Your task to perform on an android device: Search for pizza restaurants on Maps Image 0: 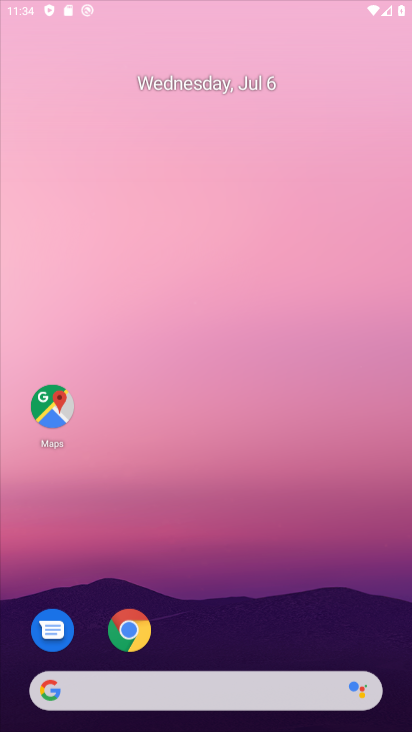
Step 0: click (281, 145)
Your task to perform on an android device: Search for pizza restaurants on Maps Image 1: 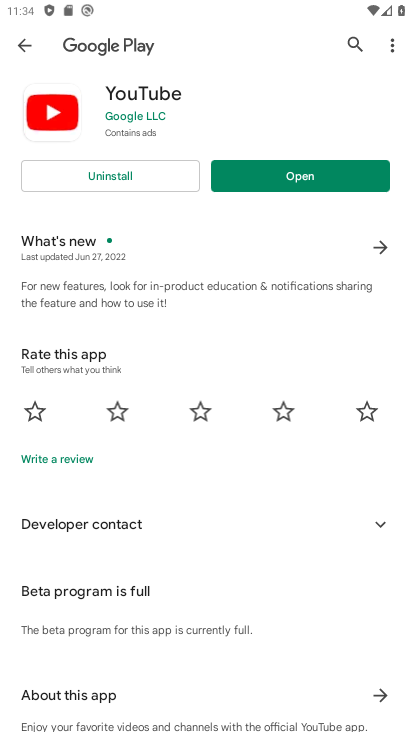
Step 1: press home button
Your task to perform on an android device: Search for pizza restaurants on Maps Image 2: 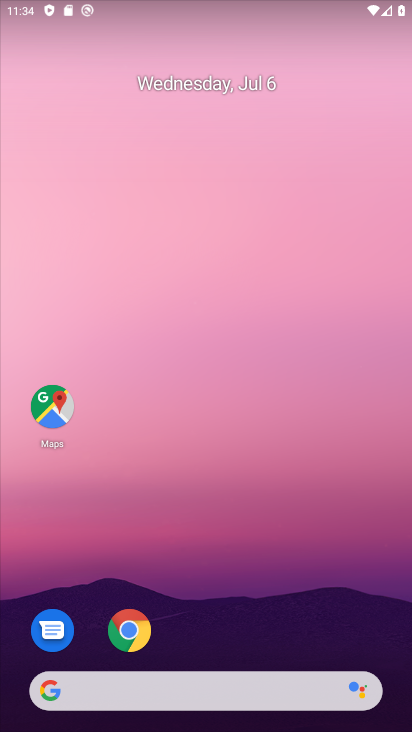
Step 2: click (57, 407)
Your task to perform on an android device: Search for pizza restaurants on Maps Image 3: 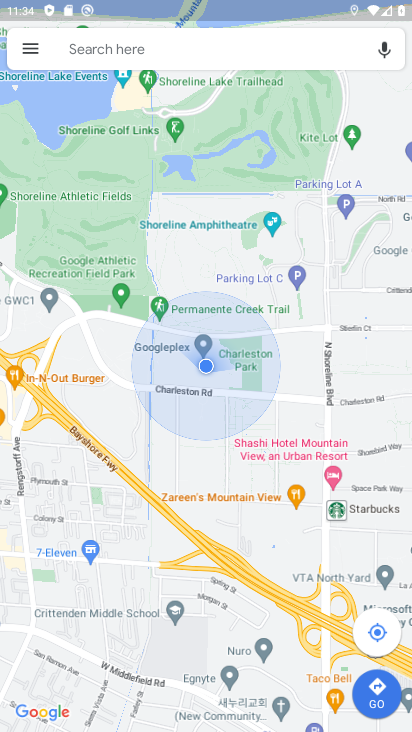
Step 3: click (197, 53)
Your task to perform on an android device: Search for pizza restaurants on Maps Image 4: 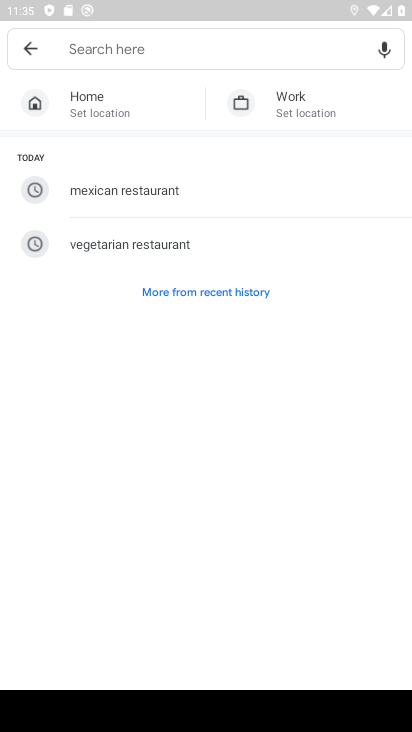
Step 4: type "pizza restaurants"
Your task to perform on an android device: Search for pizza restaurants on Maps Image 5: 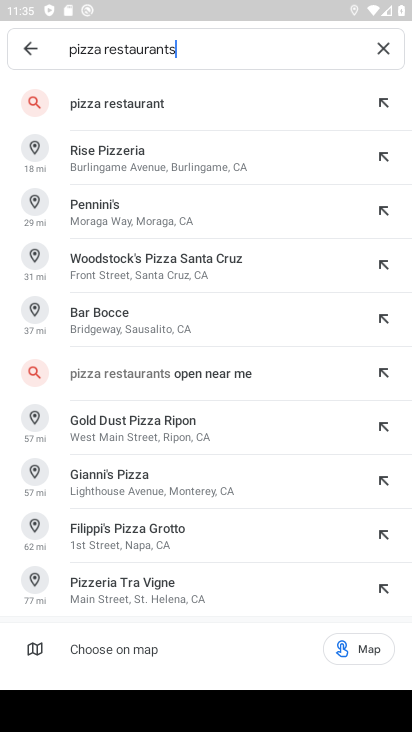
Step 5: click (229, 97)
Your task to perform on an android device: Search for pizza restaurants on Maps Image 6: 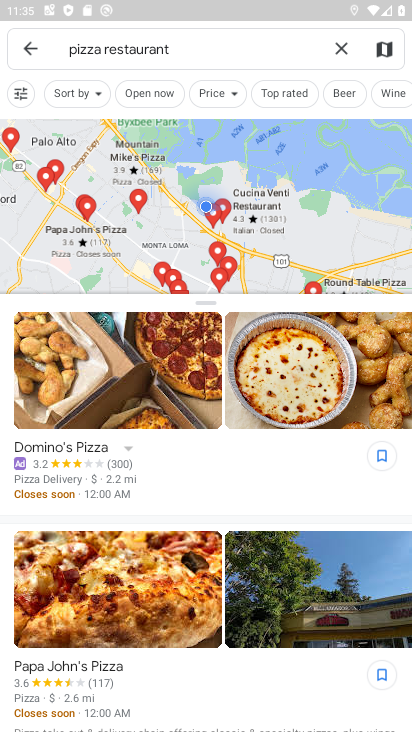
Step 6: task complete